Your task to perform on an android device: Open Chrome and go to settings Image 0: 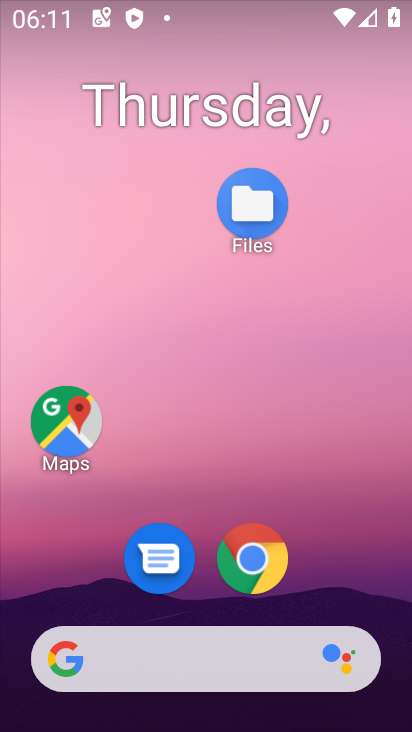
Step 0: click (276, 558)
Your task to perform on an android device: Open Chrome and go to settings Image 1: 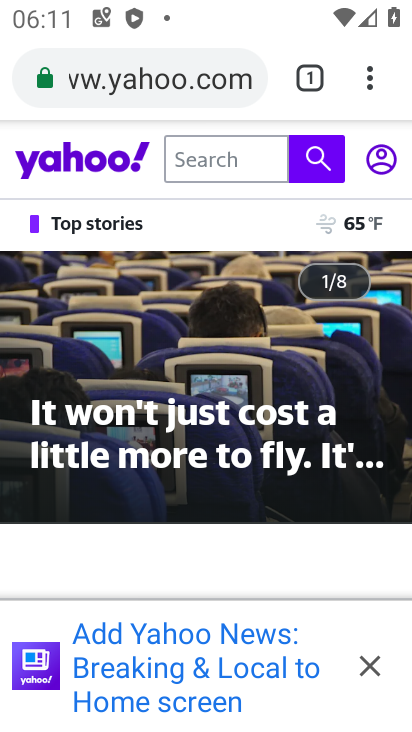
Step 1: click (369, 83)
Your task to perform on an android device: Open Chrome and go to settings Image 2: 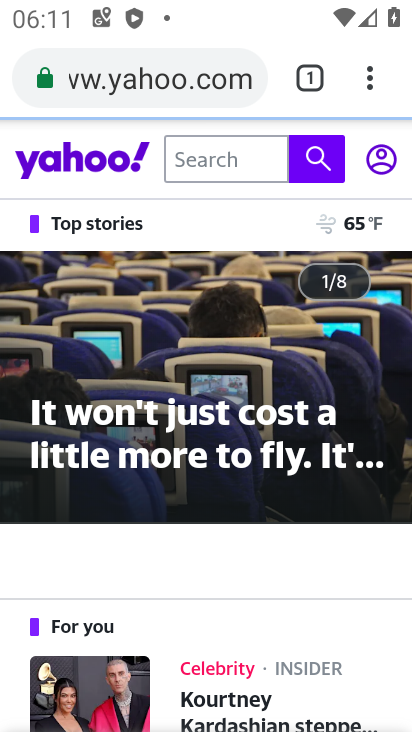
Step 2: click (369, 79)
Your task to perform on an android device: Open Chrome and go to settings Image 3: 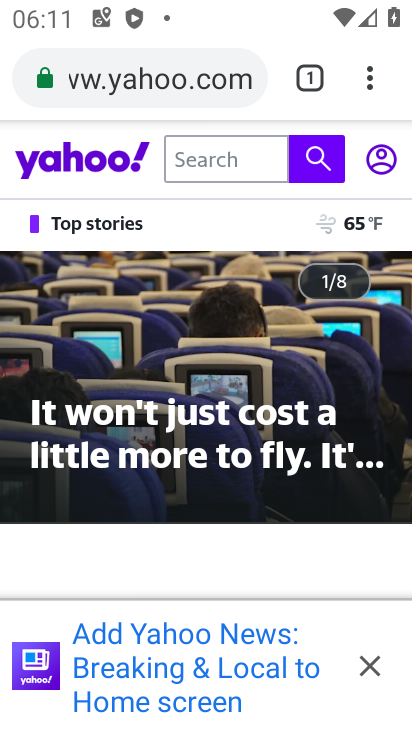
Step 3: click (370, 78)
Your task to perform on an android device: Open Chrome and go to settings Image 4: 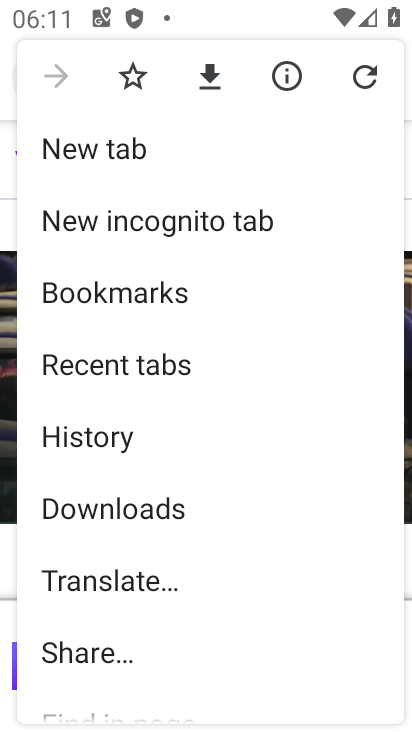
Step 4: drag from (123, 638) to (208, 280)
Your task to perform on an android device: Open Chrome and go to settings Image 5: 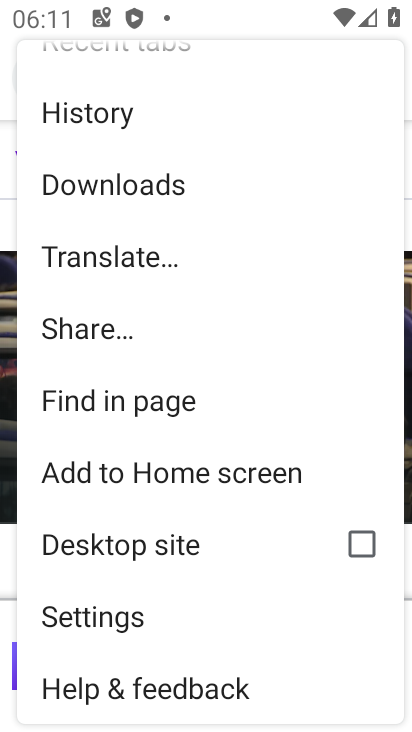
Step 5: click (78, 625)
Your task to perform on an android device: Open Chrome and go to settings Image 6: 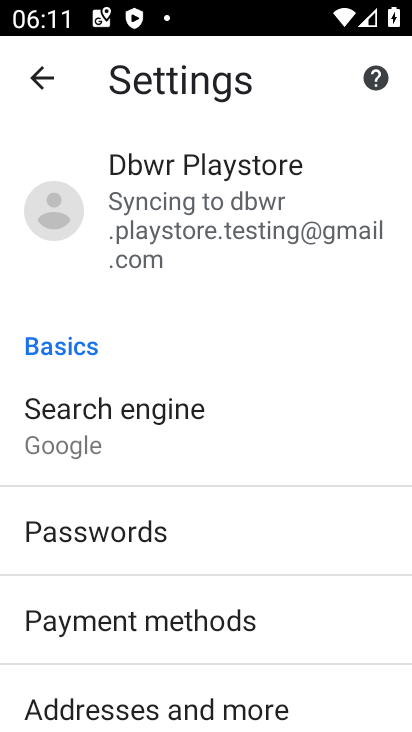
Step 6: task complete